Your task to perform on an android device: What's the news about the US dollar exchange rate? Image 0: 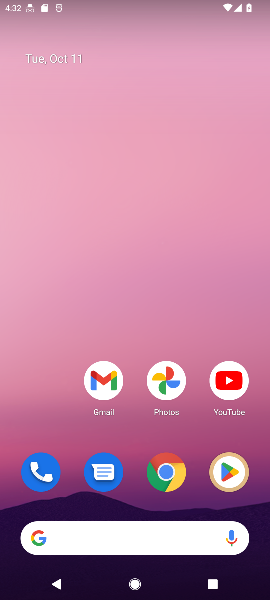
Step 0: click (161, 473)
Your task to perform on an android device: What's the news about the US dollar exchange rate? Image 1: 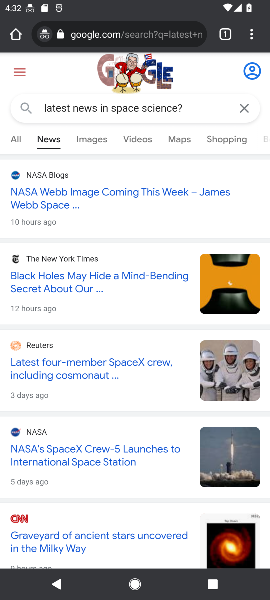
Step 1: click (144, 28)
Your task to perform on an android device: What's the news about the US dollar exchange rate? Image 2: 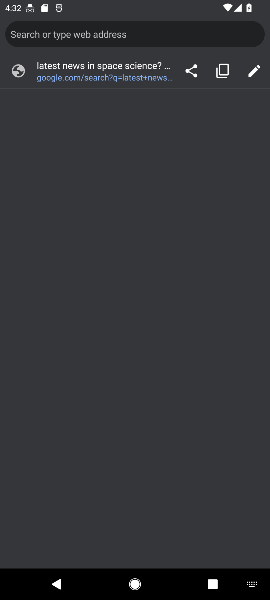
Step 2: type "What's the news about the US dollar exchange rate?"
Your task to perform on an android device: What's the news about the US dollar exchange rate? Image 3: 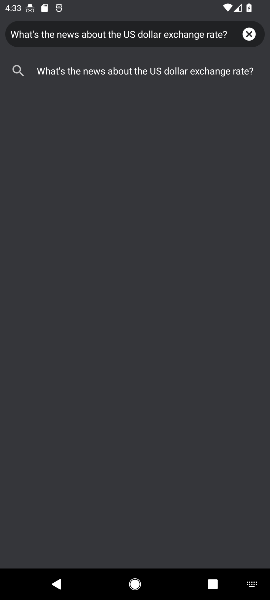
Step 3: click (127, 68)
Your task to perform on an android device: What's the news about the US dollar exchange rate? Image 4: 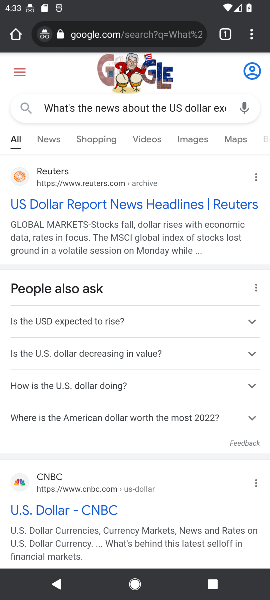
Step 4: click (46, 138)
Your task to perform on an android device: What's the news about the US dollar exchange rate? Image 5: 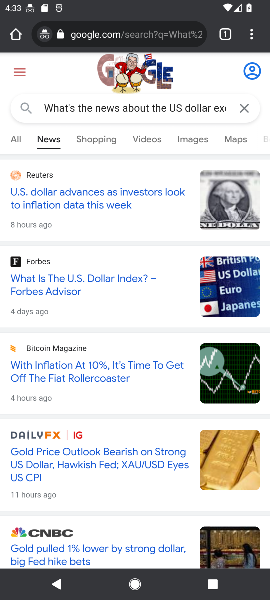
Step 5: task complete